Your task to perform on an android device: Go to wifi settings Image 0: 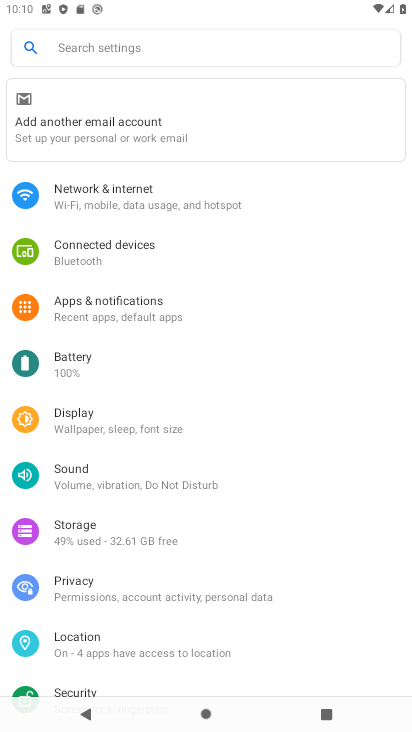
Step 0: click (255, 206)
Your task to perform on an android device: Go to wifi settings Image 1: 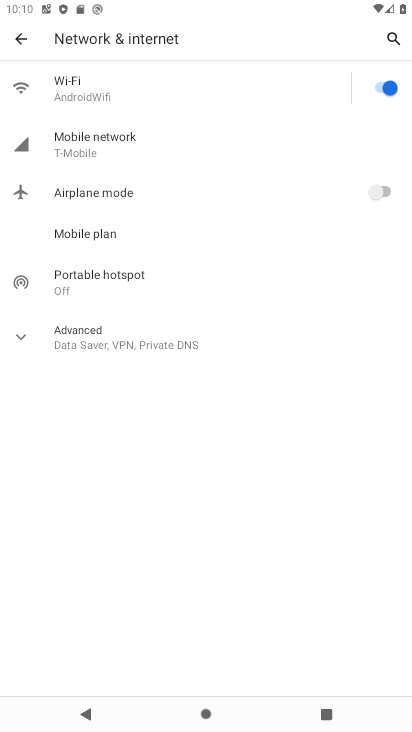
Step 1: click (110, 90)
Your task to perform on an android device: Go to wifi settings Image 2: 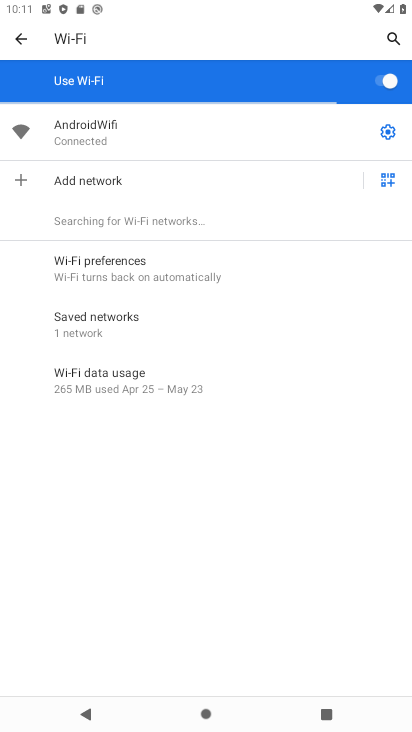
Step 2: task complete